Your task to perform on an android device: open app "HBO Max: Stream TV & Movies" (install if not already installed) and enter user name: "faring@outlook.com" and password: "appropriately" Image 0: 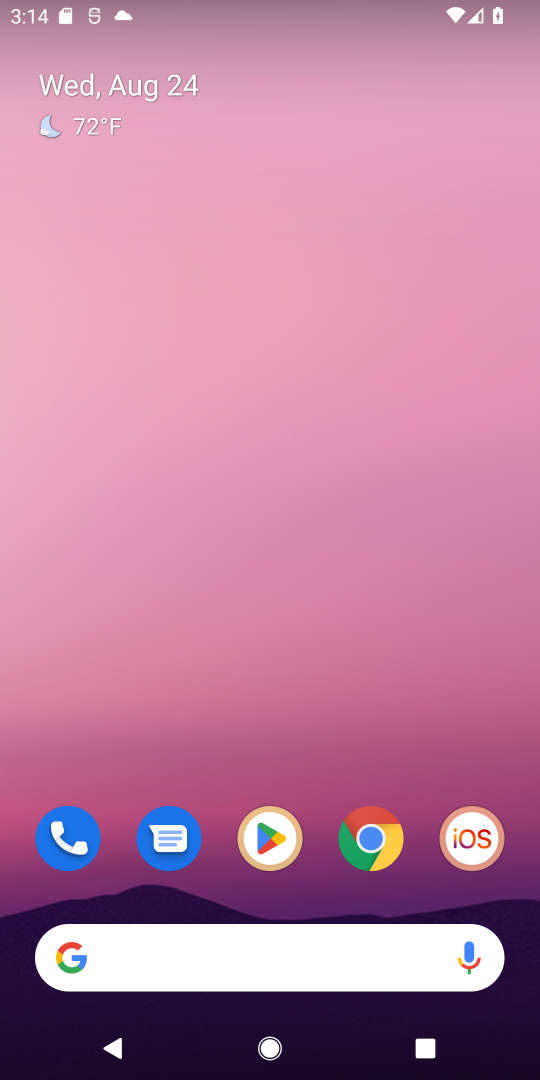
Step 0: click (275, 835)
Your task to perform on an android device: open app "HBO Max: Stream TV & Movies" (install if not already installed) and enter user name: "faring@outlook.com" and password: "appropriately" Image 1: 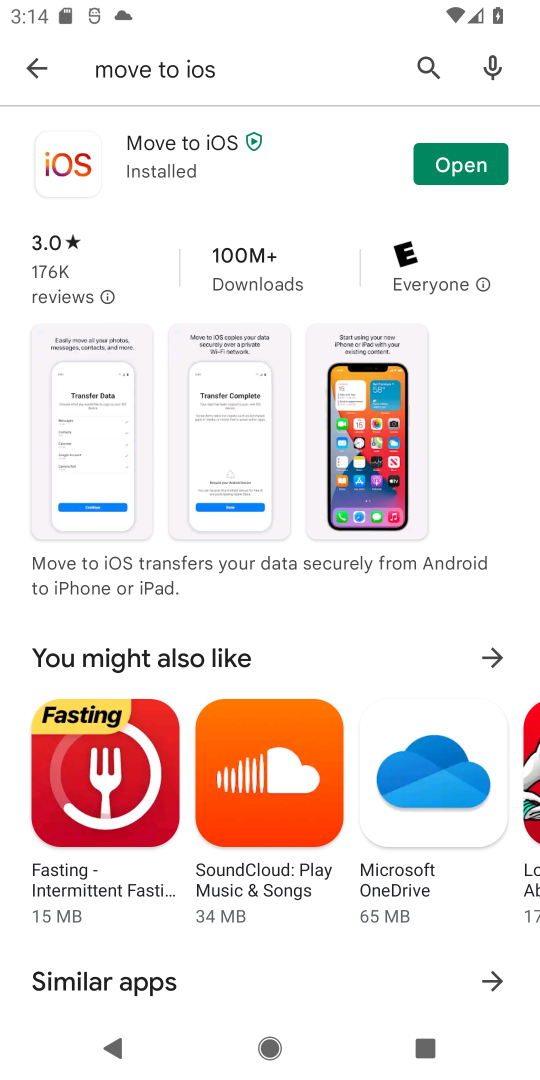
Step 1: click (18, 87)
Your task to perform on an android device: open app "HBO Max: Stream TV & Movies" (install if not already installed) and enter user name: "faring@outlook.com" and password: "appropriately" Image 2: 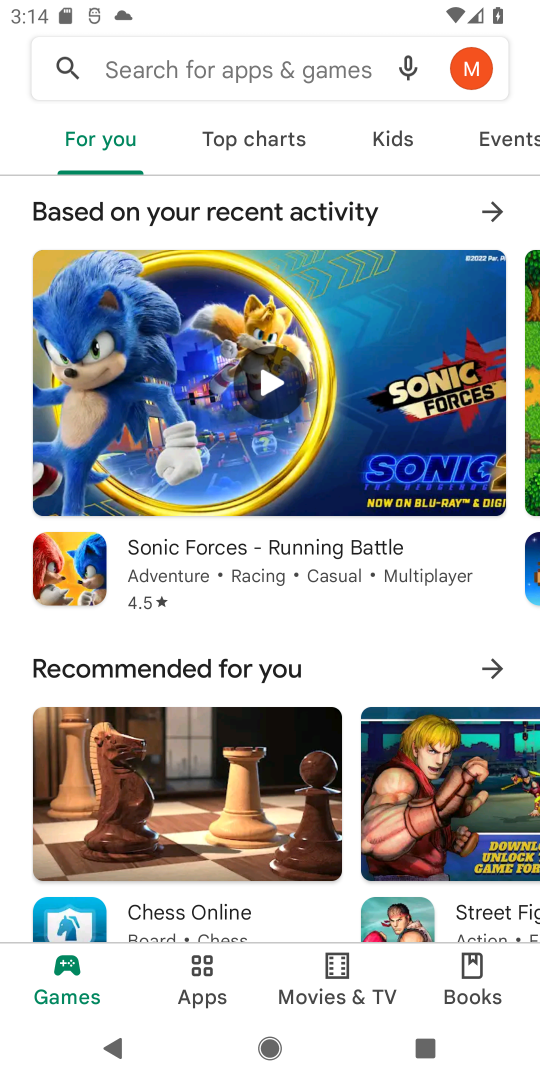
Step 2: click (172, 78)
Your task to perform on an android device: open app "HBO Max: Stream TV & Movies" (install if not already installed) and enter user name: "faring@outlook.com" and password: "appropriately" Image 3: 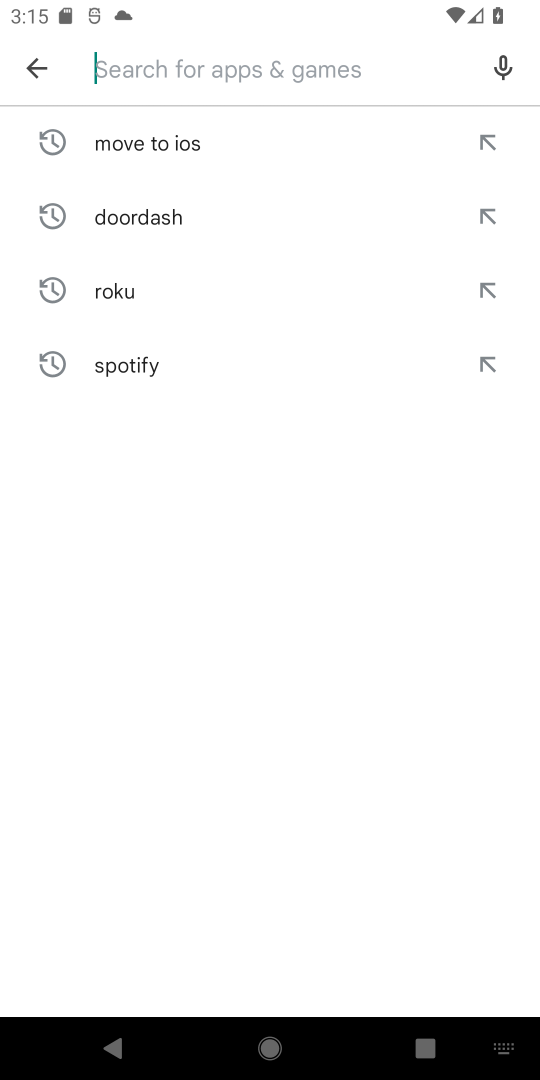
Step 3: type "HBO Max: Stream TV & Movi"
Your task to perform on an android device: open app "HBO Max: Stream TV & Movies" (install if not already installed) and enter user name: "faring@outlook.com" and password: "appropriately" Image 4: 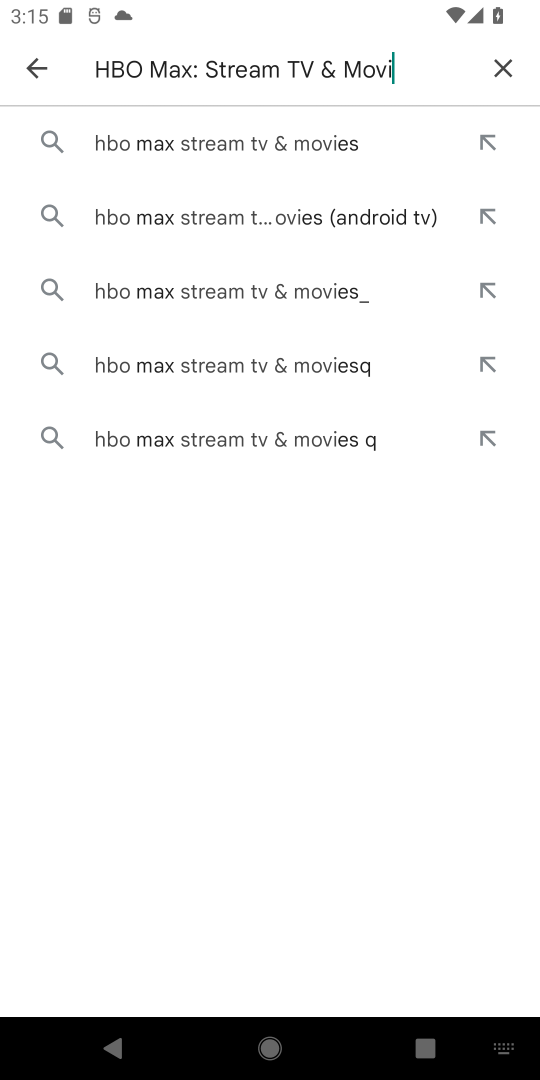
Step 4: click (166, 135)
Your task to perform on an android device: open app "HBO Max: Stream TV & Movies" (install if not already installed) and enter user name: "faring@outlook.com" and password: "appropriately" Image 5: 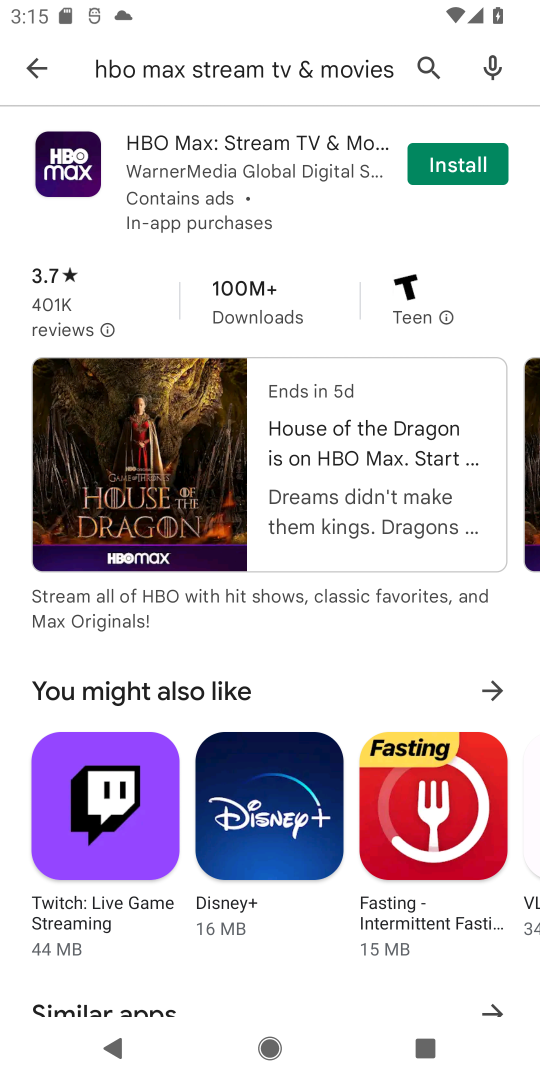
Step 5: click (424, 155)
Your task to perform on an android device: open app "HBO Max: Stream TV & Movies" (install if not already installed) and enter user name: "faring@outlook.com" and password: "appropriately" Image 6: 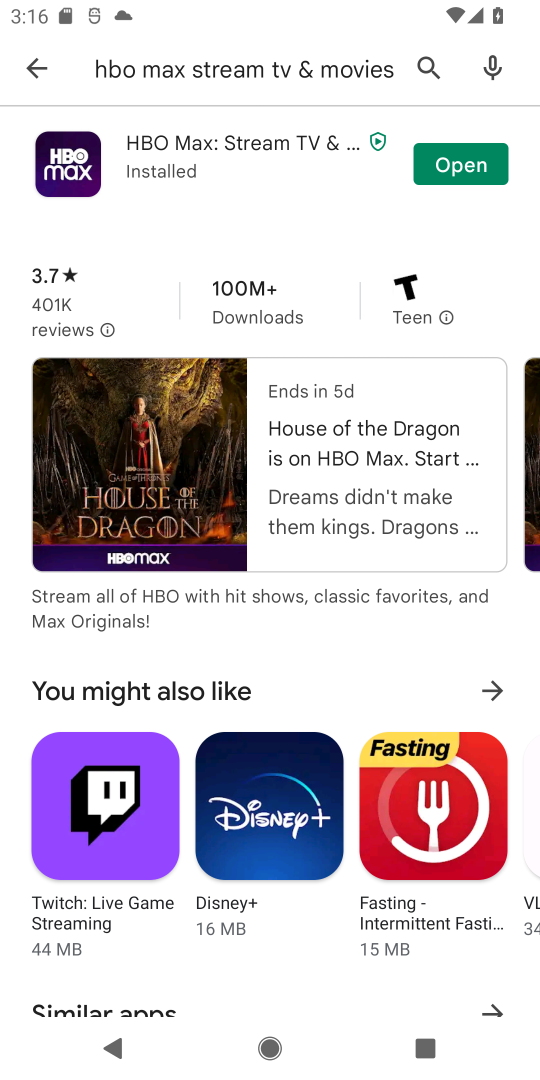
Step 6: click (462, 171)
Your task to perform on an android device: open app "HBO Max: Stream TV & Movies" (install if not already installed) and enter user name: "faring@outlook.com" and password: "appropriately" Image 7: 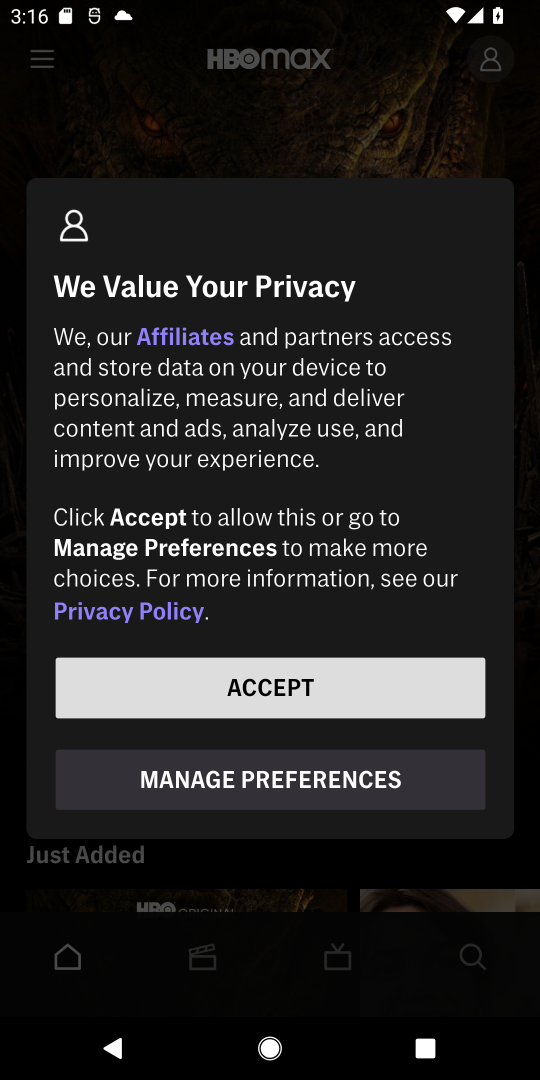
Step 7: click (208, 675)
Your task to perform on an android device: open app "HBO Max: Stream TV & Movies" (install if not already installed) and enter user name: "faring@outlook.com" and password: "appropriately" Image 8: 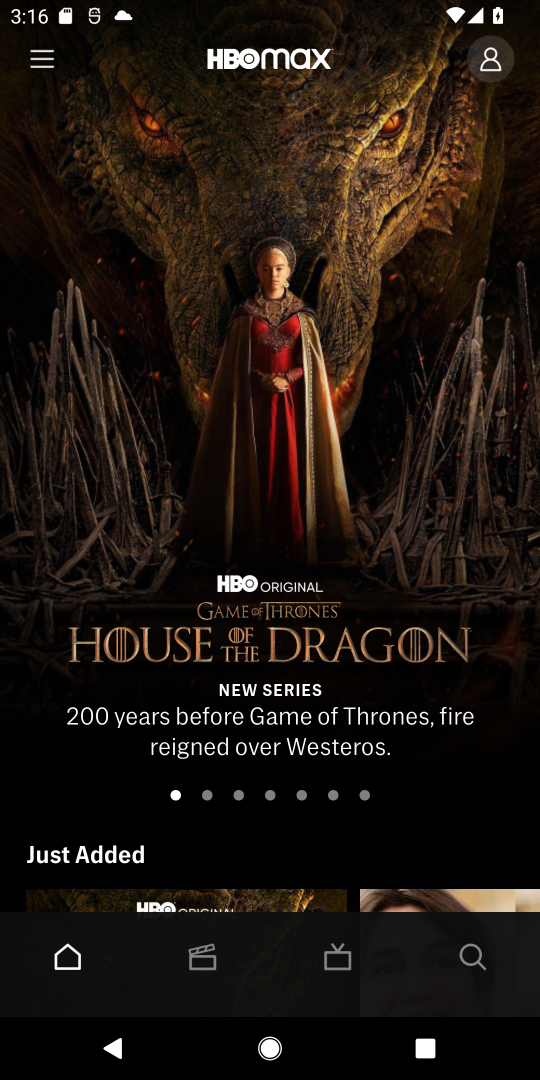
Step 8: click (472, 66)
Your task to perform on an android device: open app "HBO Max: Stream TV & Movies" (install if not already installed) and enter user name: "faring@outlook.com" and password: "appropriately" Image 9: 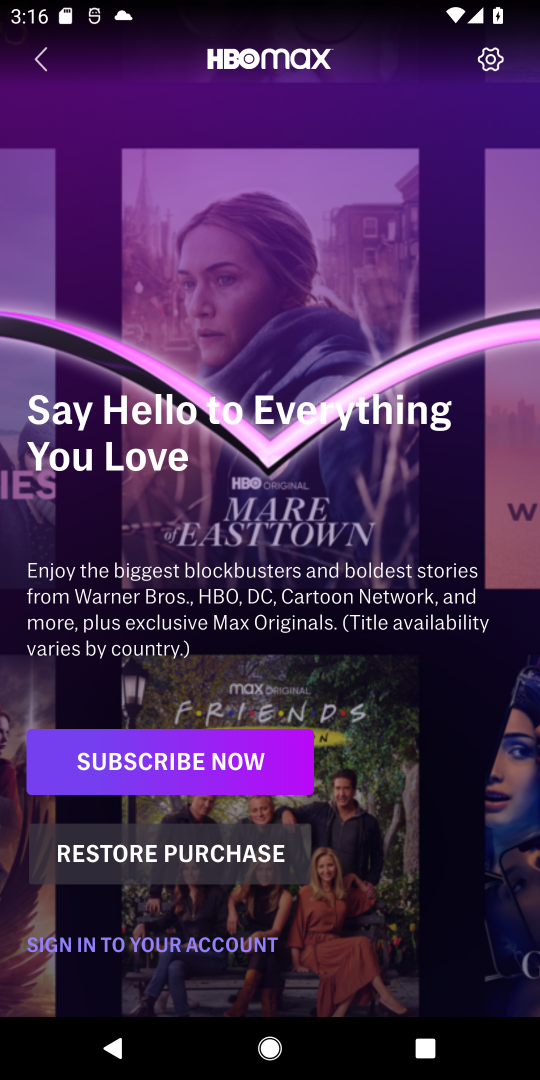
Step 9: click (153, 933)
Your task to perform on an android device: open app "HBO Max: Stream TV & Movies" (install if not already installed) and enter user name: "faring@outlook.com" and password: "appropriately" Image 10: 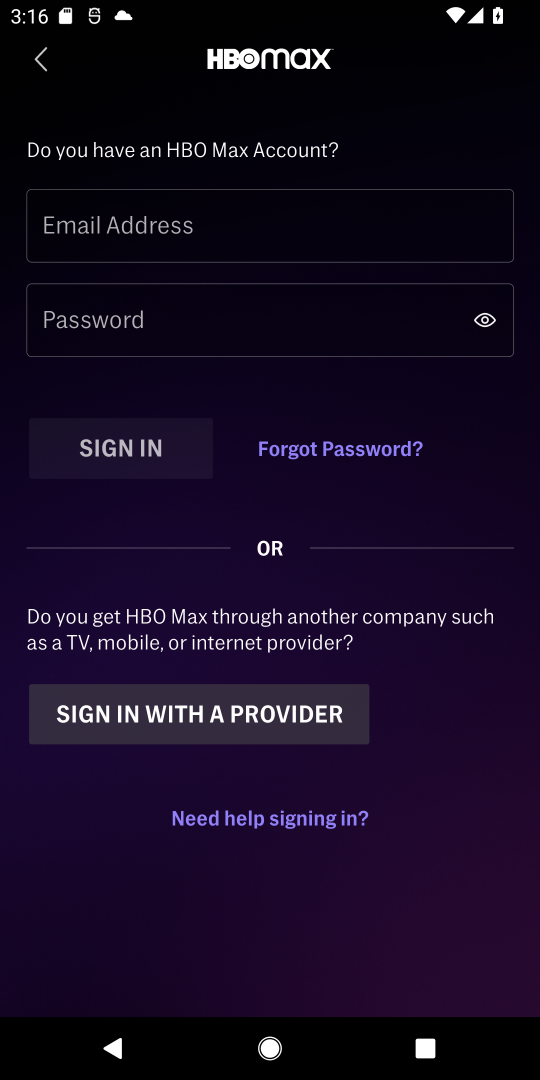
Step 10: click (119, 244)
Your task to perform on an android device: open app "HBO Max: Stream TV & Movies" (install if not already installed) and enter user name: "faring@outlook.com" and password: "appropriately" Image 11: 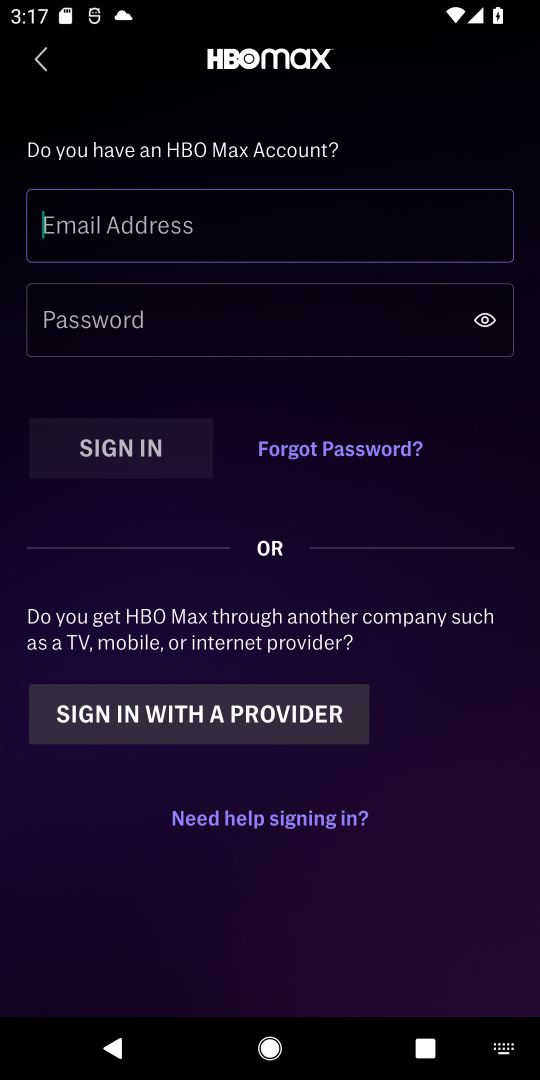
Step 11: type "faring@outlook.com"
Your task to perform on an android device: open app "HBO Max: Stream TV & Movies" (install if not already installed) and enter user name: "faring@outlook.com" and password: "appropriately" Image 12: 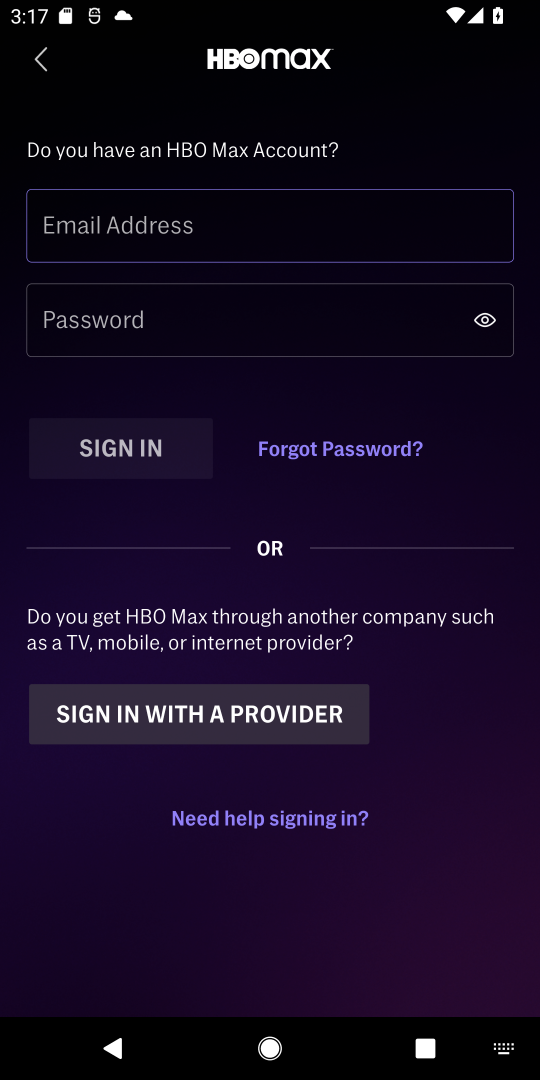
Step 12: click (133, 324)
Your task to perform on an android device: open app "HBO Max: Stream TV & Movies" (install if not already installed) and enter user name: "faring@outlook.com" and password: "appropriately" Image 13: 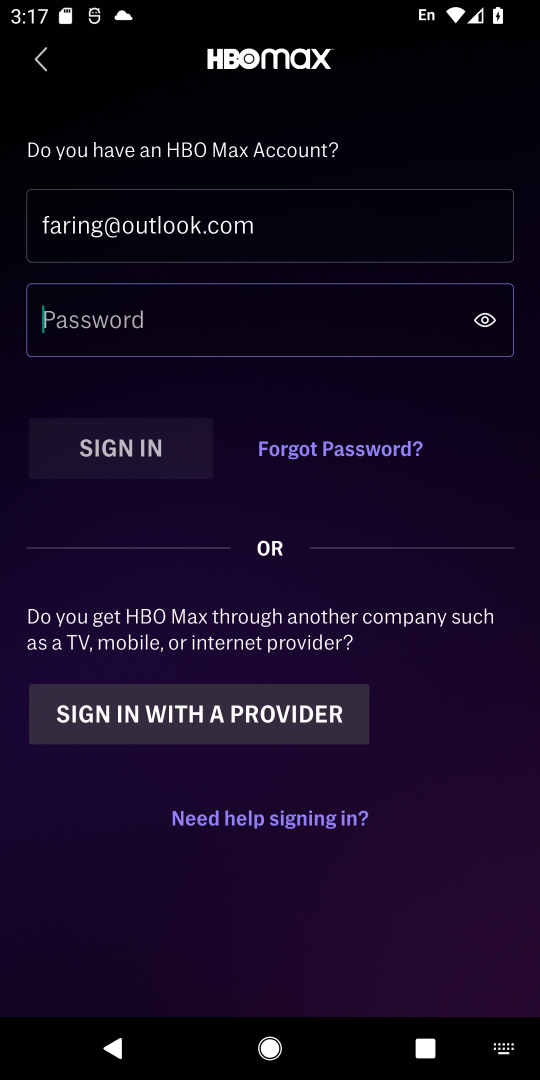
Step 13: type "appropriately"
Your task to perform on an android device: open app "HBO Max: Stream TV & Movies" (install if not already installed) and enter user name: "faring@outlook.com" and password: "appropriately" Image 14: 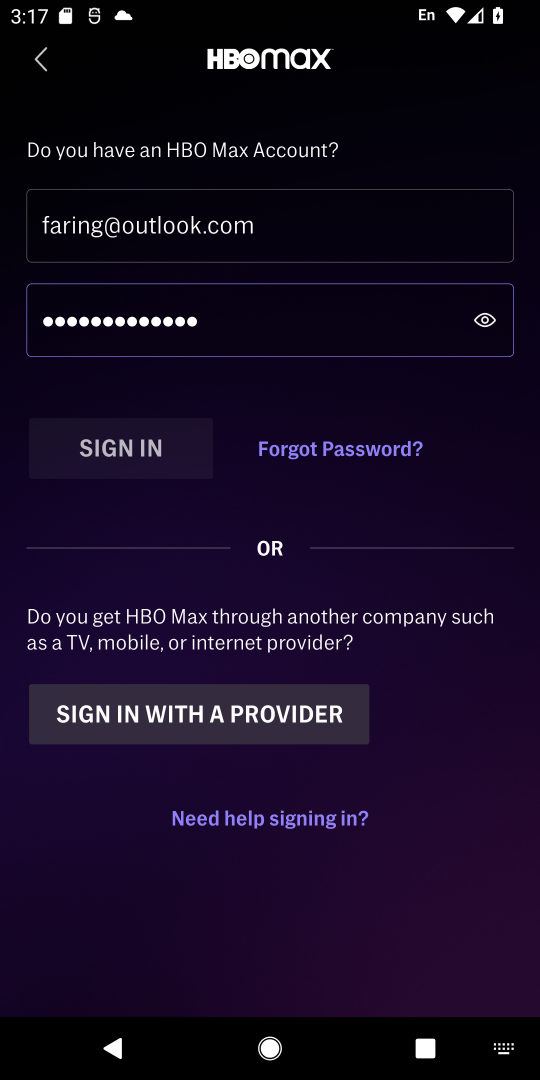
Step 14: task complete